Your task to perform on an android device: turn off location history Image 0: 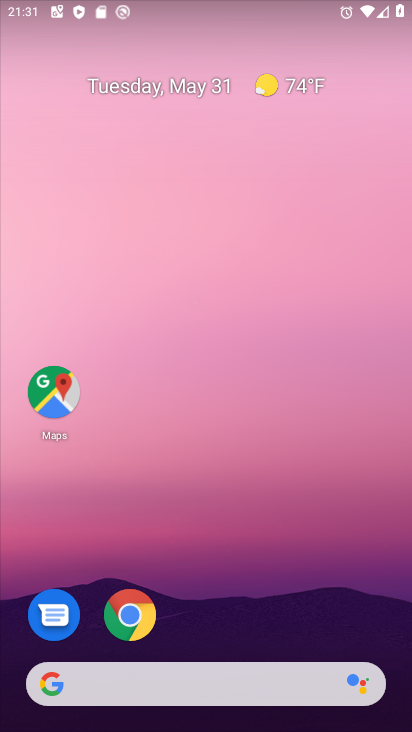
Step 0: drag from (211, 644) to (249, 180)
Your task to perform on an android device: turn off location history Image 1: 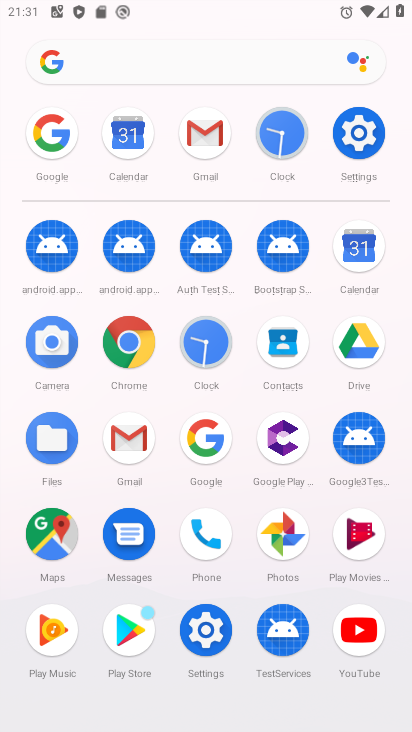
Step 1: click (357, 135)
Your task to perform on an android device: turn off location history Image 2: 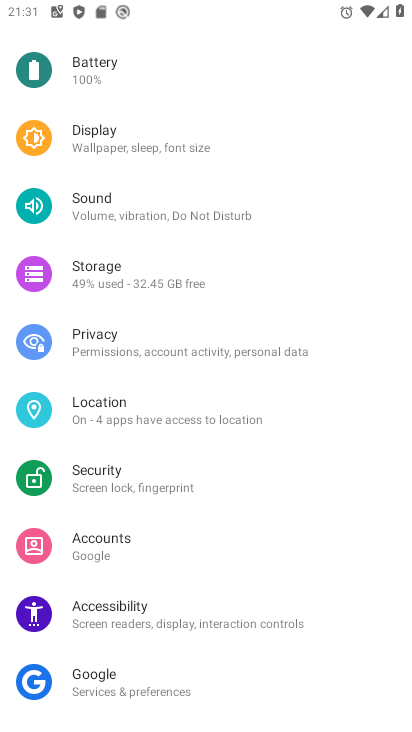
Step 2: click (144, 407)
Your task to perform on an android device: turn off location history Image 3: 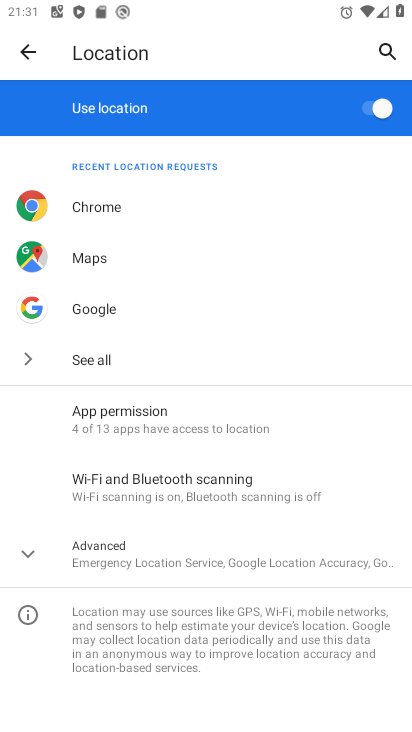
Step 3: click (170, 563)
Your task to perform on an android device: turn off location history Image 4: 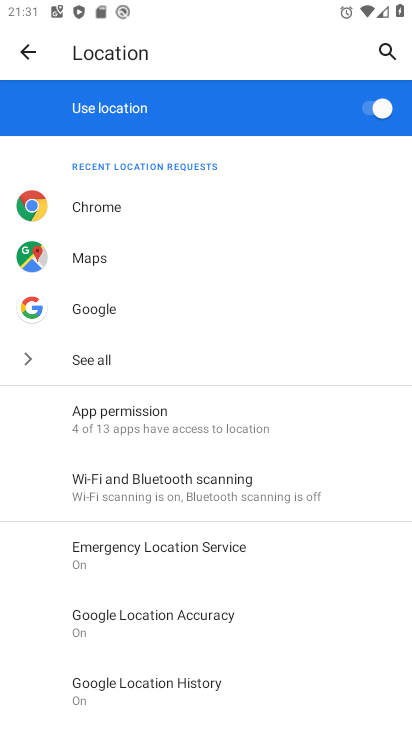
Step 4: click (243, 677)
Your task to perform on an android device: turn off location history Image 5: 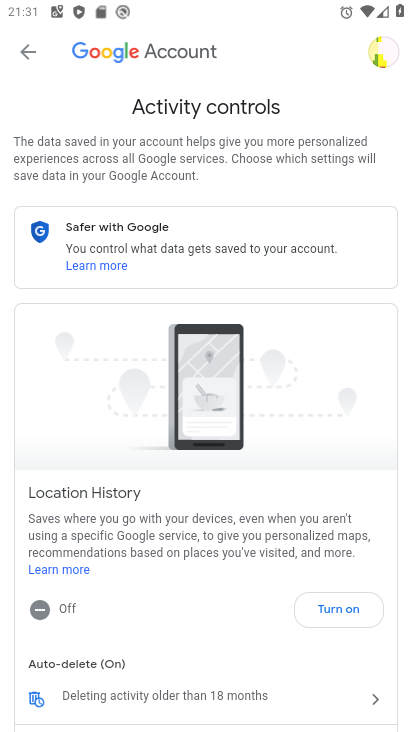
Step 5: task complete